Your task to perform on an android device: turn vacation reply on in the gmail app Image 0: 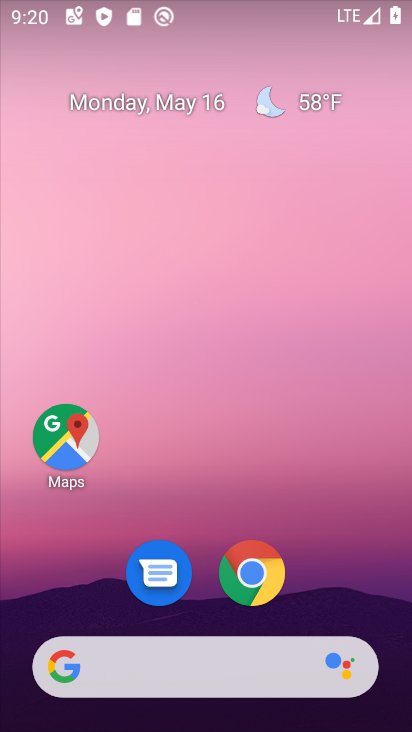
Step 0: drag from (208, 718) to (210, 171)
Your task to perform on an android device: turn vacation reply on in the gmail app Image 1: 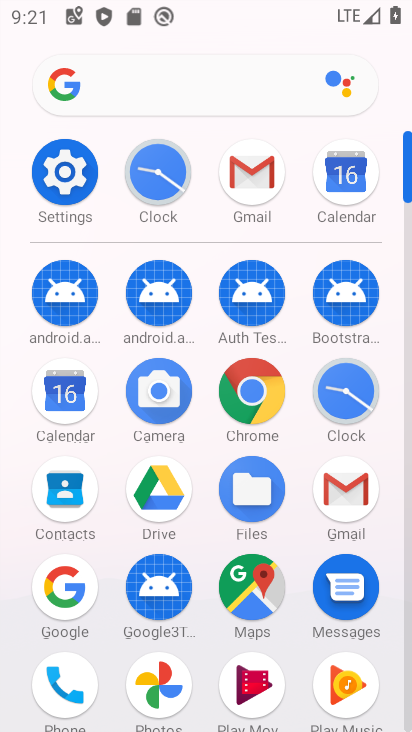
Step 1: click (262, 170)
Your task to perform on an android device: turn vacation reply on in the gmail app Image 2: 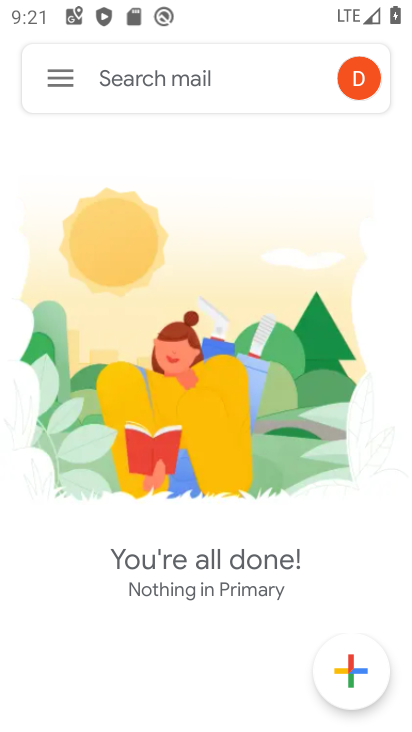
Step 2: click (60, 81)
Your task to perform on an android device: turn vacation reply on in the gmail app Image 3: 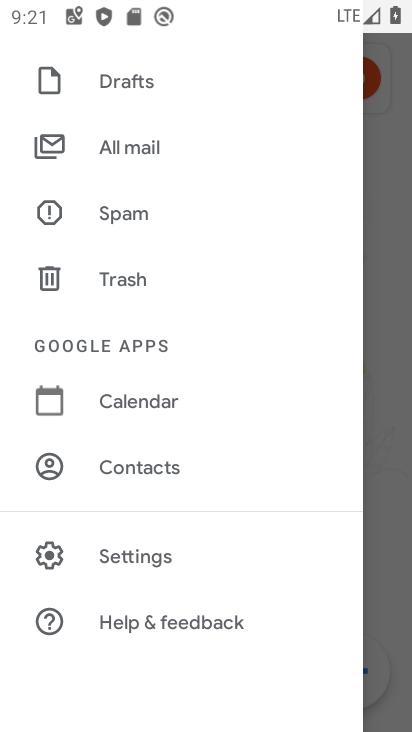
Step 3: click (124, 563)
Your task to perform on an android device: turn vacation reply on in the gmail app Image 4: 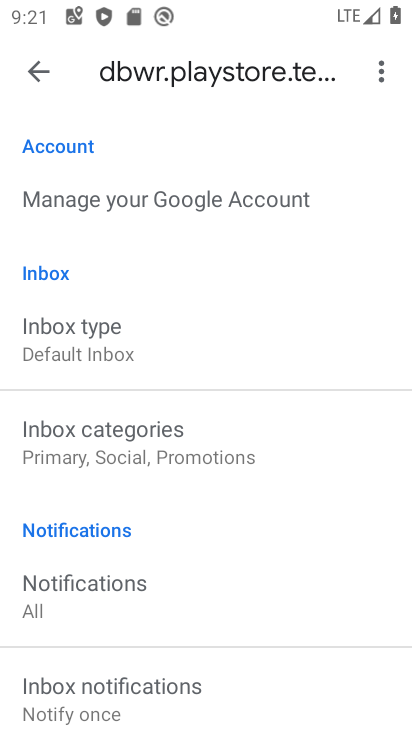
Step 4: drag from (124, 658) to (128, 208)
Your task to perform on an android device: turn vacation reply on in the gmail app Image 5: 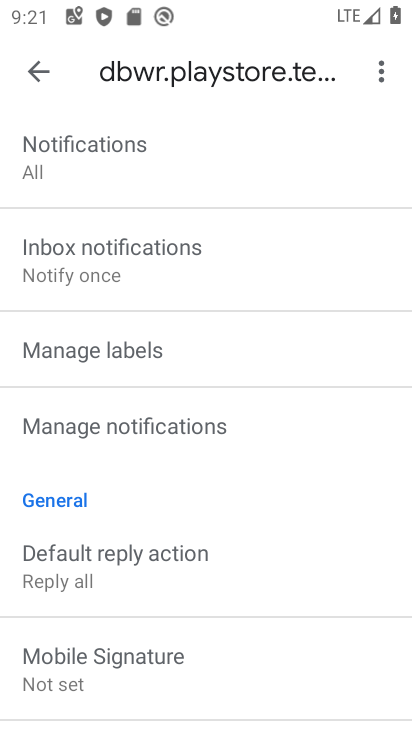
Step 5: drag from (142, 681) to (150, 235)
Your task to perform on an android device: turn vacation reply on in the gmail app Image 6: 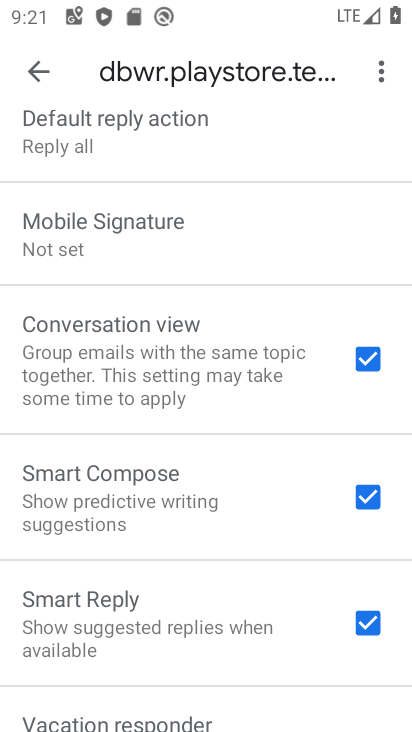
Step 6: drag from (159, 690) to (162, 214)
Your task to perform on an android device: turn vacation reply on in the gmail app Image 7: 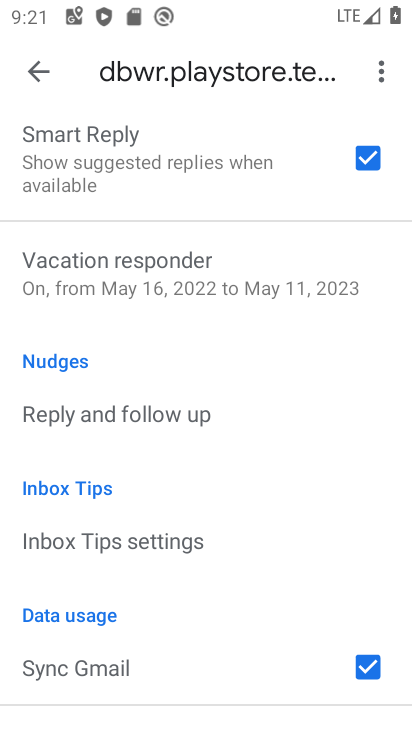
Step 7: click (118, 286)
Your task to perform on an android device: turn vacation reply on in the gmail app Image 8: 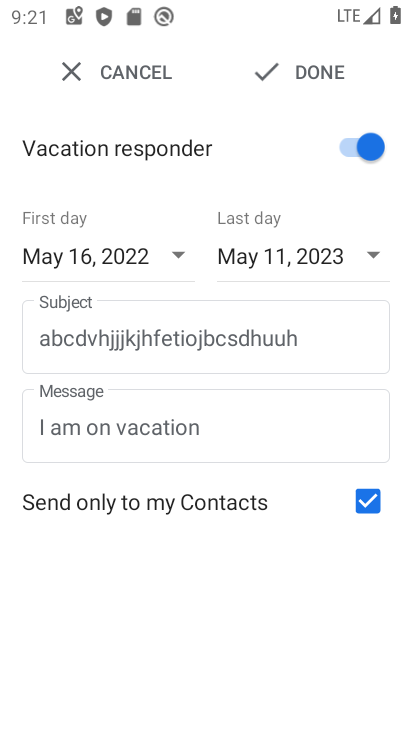
Step 8: task complete